Your task to perform on an android device: open device folders in google photos Image 0: 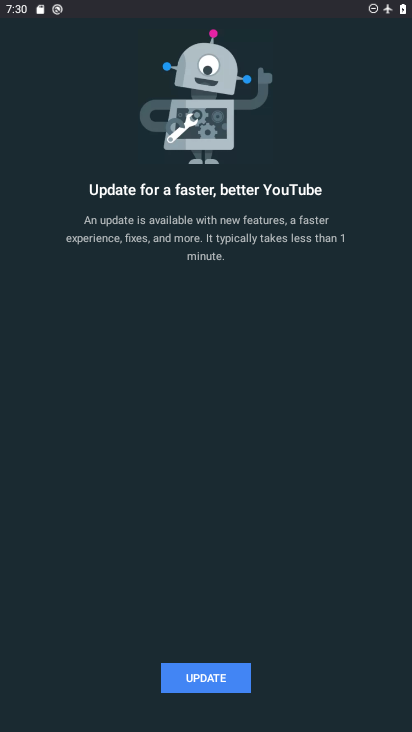
Step 0: press home button
Your task to perform on an android device: open device folders in google photos Image 1: 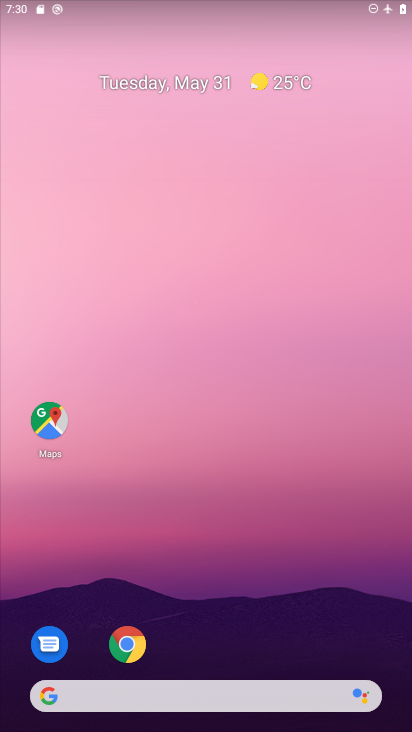
Step 1: drag from (216, 715) to (205, 292)
Your task to perform on an android device: open device folders in google photos Image 2: 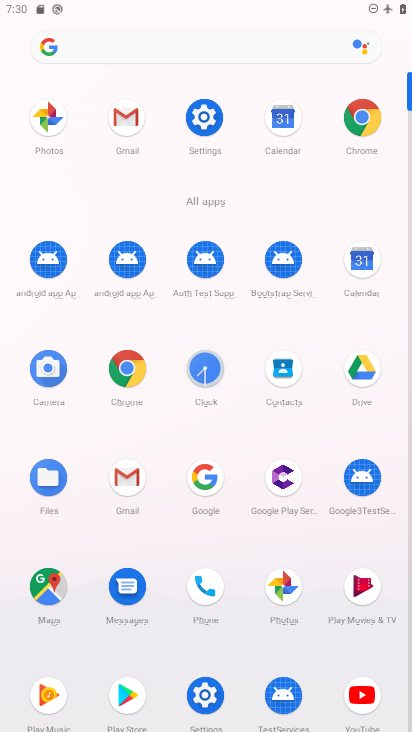
Step 2: click (285, 580)
Your task to perform on an android device: open device folders in google photos Image 3: 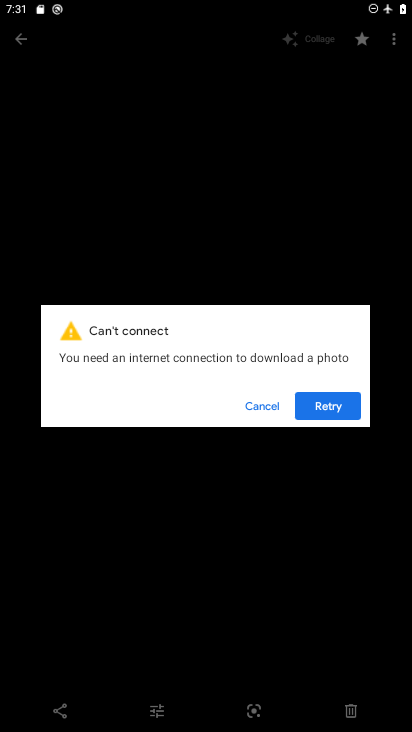
Step 3: click (254, 405)
Your task to perform on an android device: open device folders in google photos Image 4: 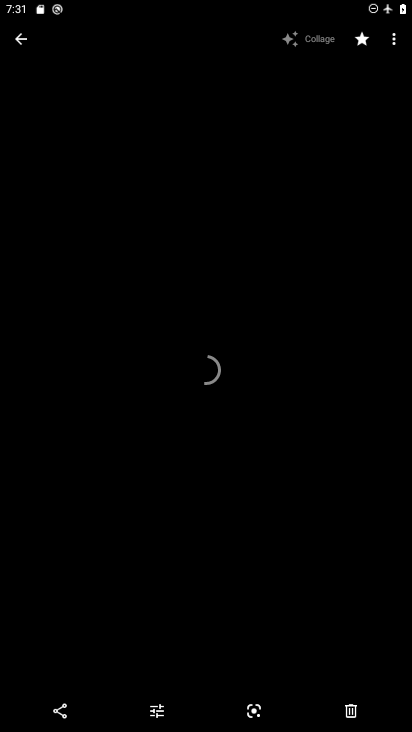
Step 4: click (20, 40)
Your task to perform on an android device: open device folders in google photos Image 5: 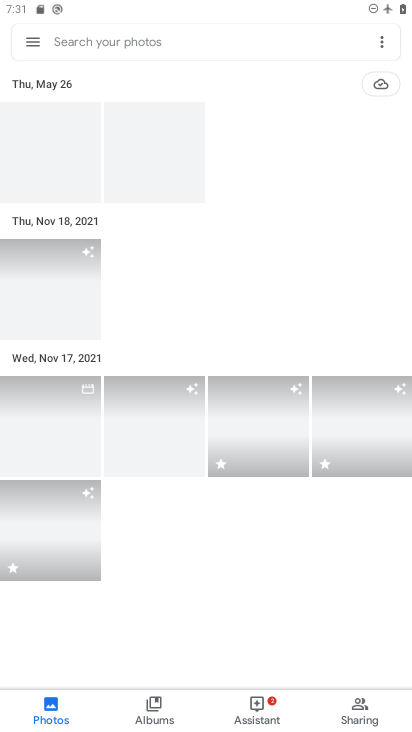
Step 5: click (92, 50)
Your task to perform on an android device: open device folders in google photos Image 6: 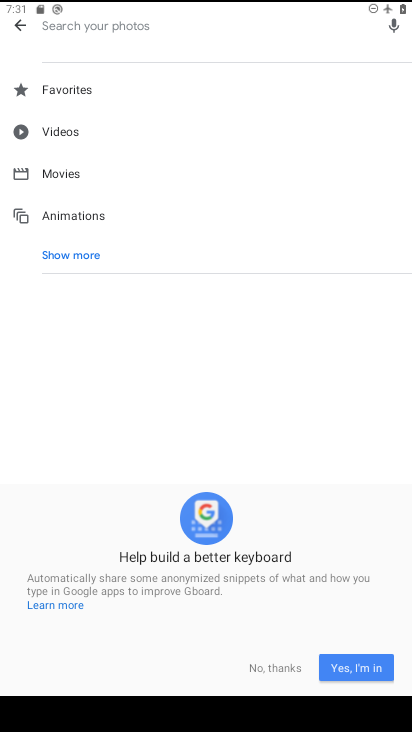
Step 6: click (275, 678)
Your task to perform on an android device: open device folders in google photos Image 7: 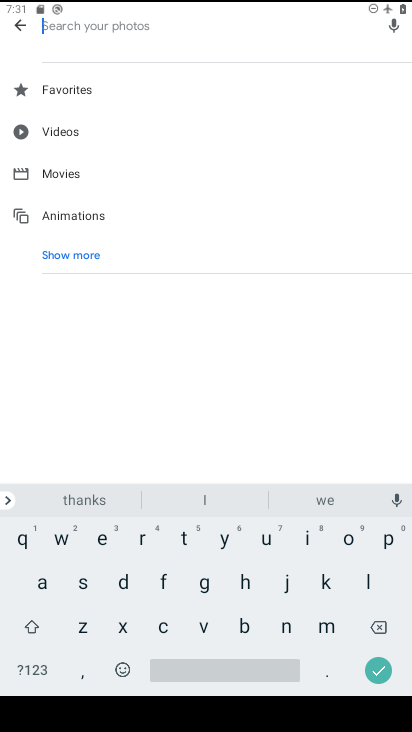
Step 7: click (123, 587)
Your task to perform on an android device: open device folders in google photos Image 8: 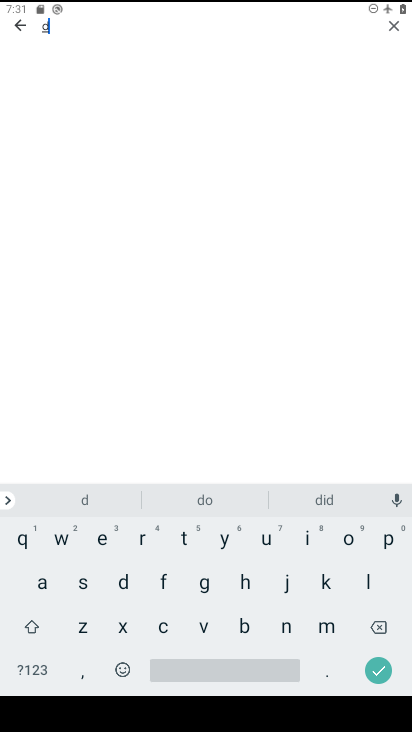
Step 8: click (100, 539)
Your task to perform on an android device: open device folders in google photos Image 9: 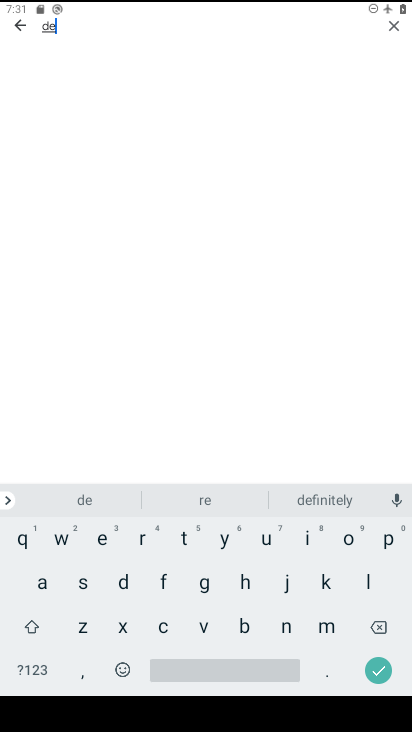
Step 9: click (203, 623)
Your task to perform on an android device: open device folders in google photos Image 10: 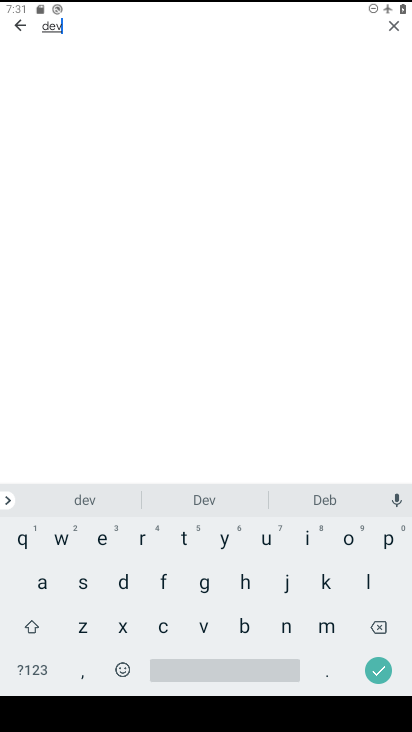
Step 10: click (307, 541)
Your task to perform on an android device: open device folders in google photos Image 11: 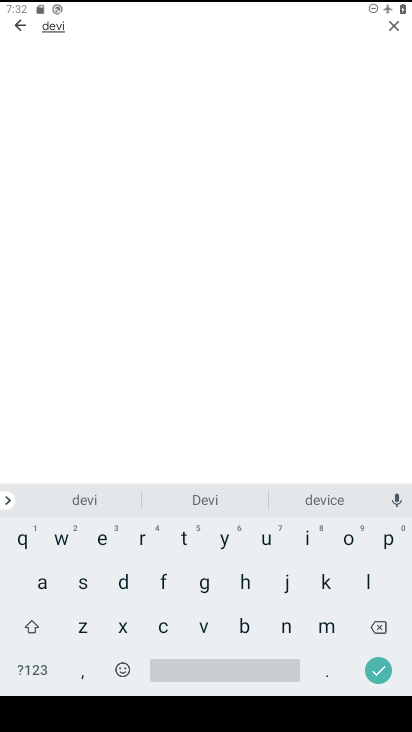
Step 11: click (324, 502)
Your task to perform on an android device: open device folders in google photos Image 12: 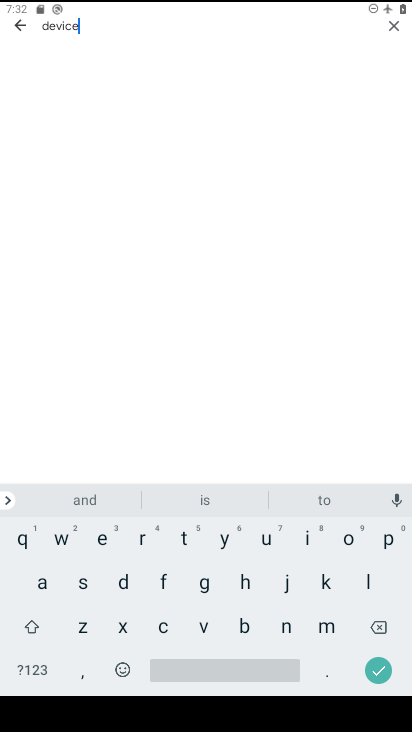
Step 12: click (160, 583)
Your task to perform on an android device: open device folders in google photos Image 13: 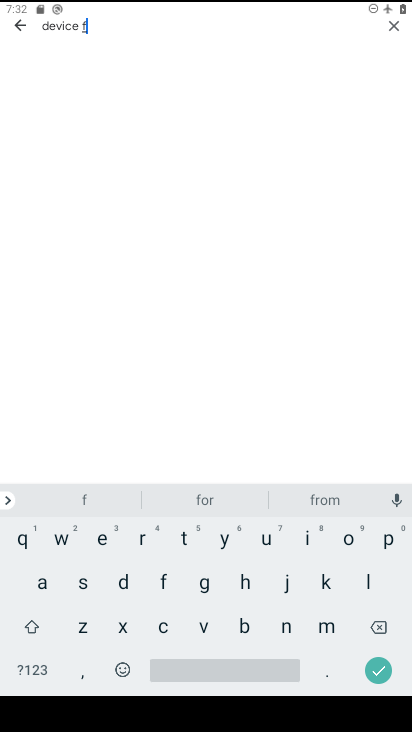
Step 13: click (347, 536)
Your task to perform on an android device: open device folders in google photos Image 14: 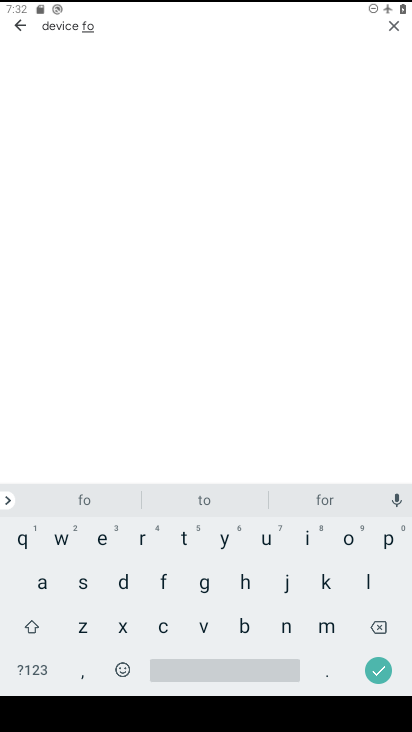
Step 14: click (360, 579)
Your task to perform on an android device: open device folders in google photos Image 15: 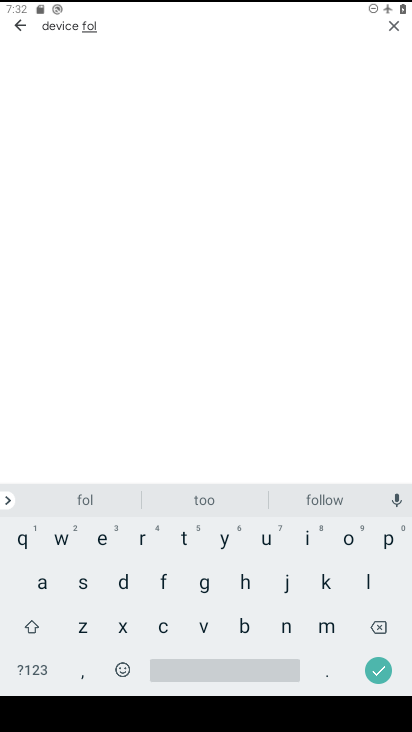
Step 15: click (109, 580)
Your task to perform on an android device: open device folders in google photos Image 16: 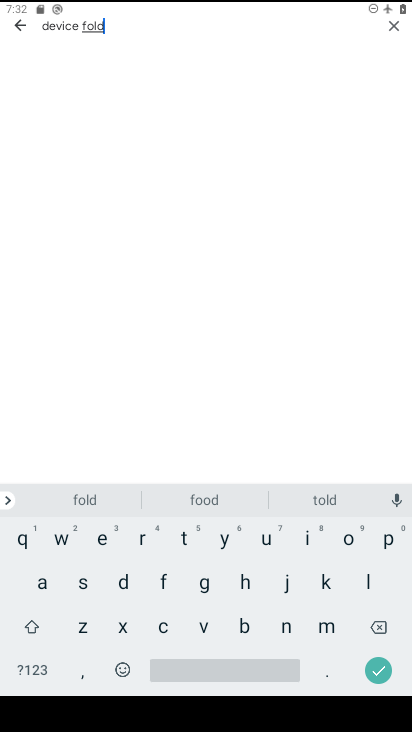
Step 16: click (92, 540)
Your task to perform on an android device: open device folders in google photos Image 17: 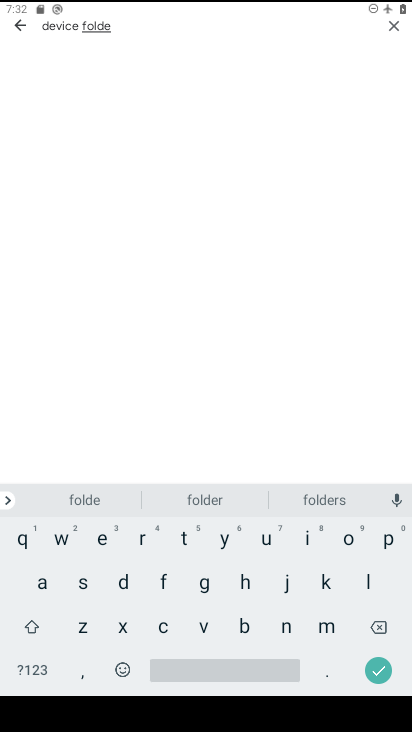
Step 17: click (318, 504)
Your task to perform on an android device: open device folders in google photos Image 18: 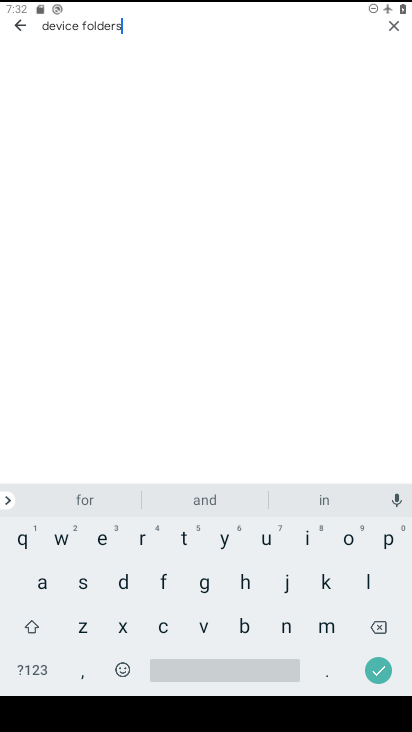
Step 18: click (379, 668)
Your task to perform on an android device: open device folders in google photos Image 19: 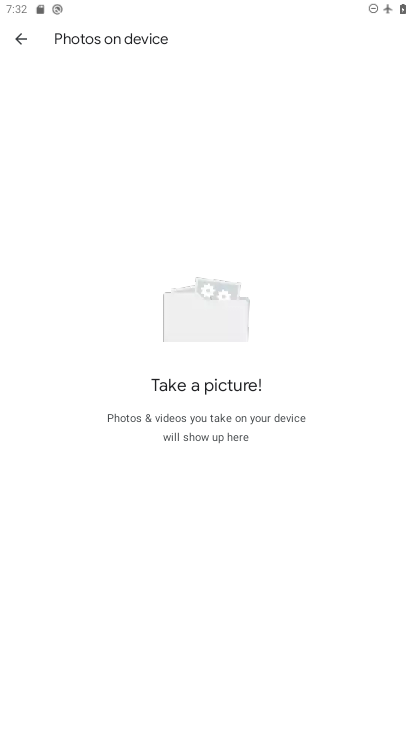
Step 19: task complete